Your task to perform on an android device: clear all cookies in the chrome app Image 0: 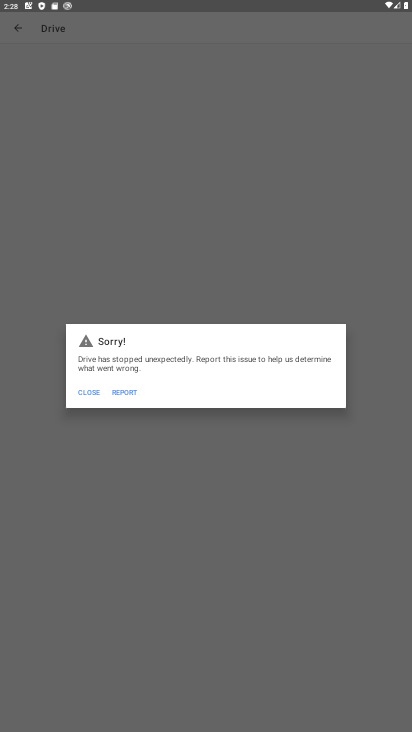
Step 0: press home button
Your task to perform on an android device: clear all cookies in the chrome app Image 1: 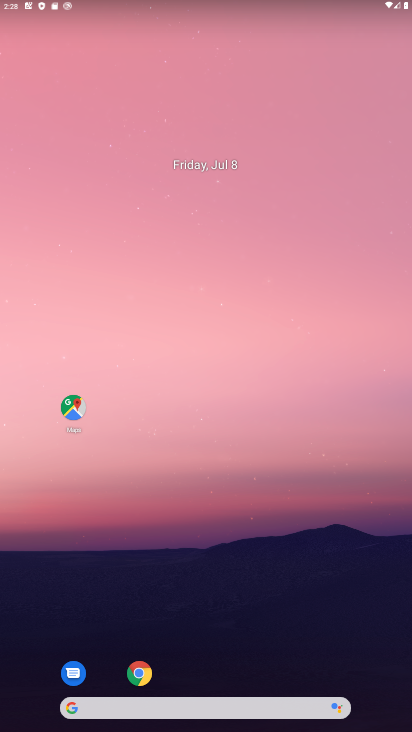
Step 1: click (140, 671)
Your task to perform on an android device: clear all cookies in the chrome app Image 2: 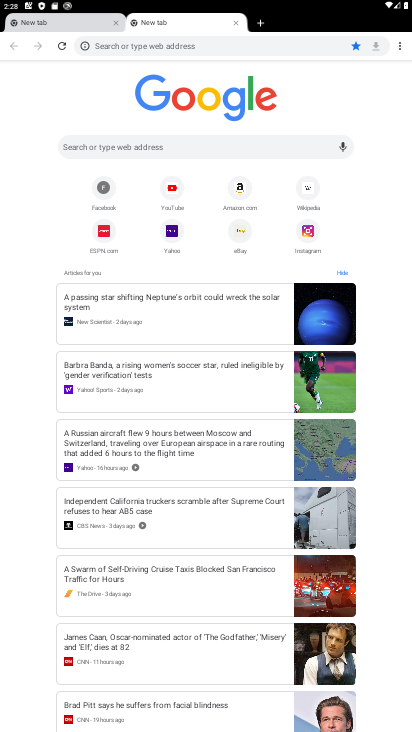
Step 2: click (396, 48)
Your task to perform on an android device: clear all cookies in the chrome app Image 3: 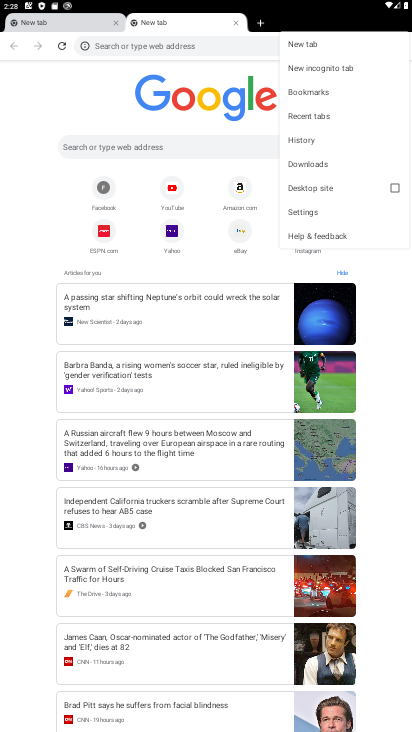
Step 3: click (312, 138)
Your task to perform on an android device: clear all cookies in the chrome app Image 4: 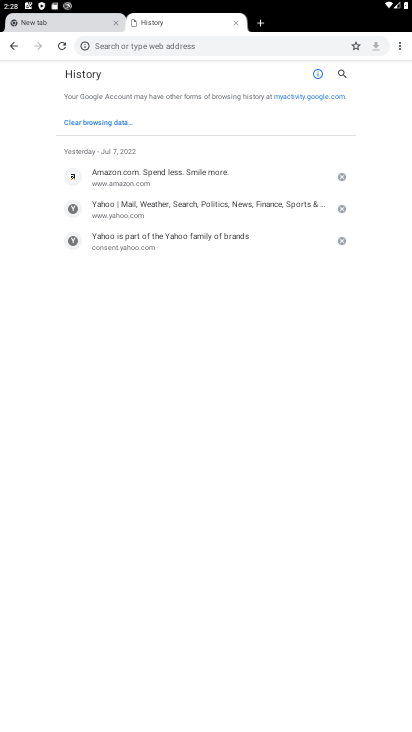
Step 4: click (106, 117)
Your task to perform on an android device: clear all cookies in the chrome app Image 5: 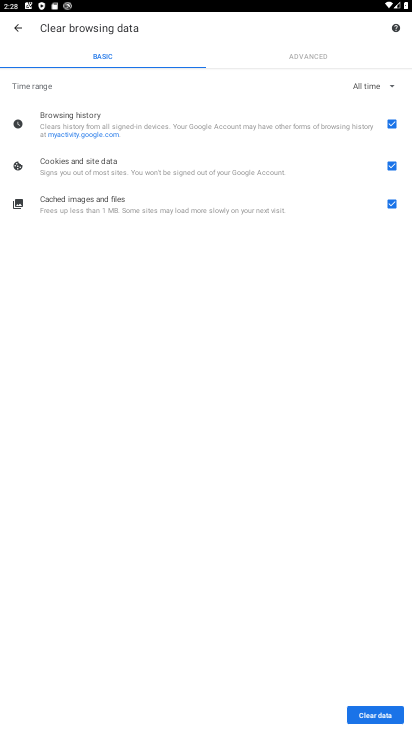
Step 5: click (391, 201)
Your task to perform on an android device: clear all cookies in the chrome app Image 6: 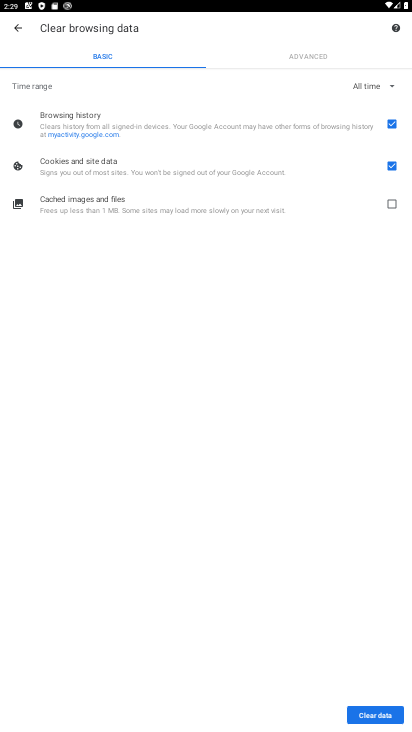
Step 6: click (396, 127)
Your task to perform on an android device: clear all cookies in the chrome app Image 7: 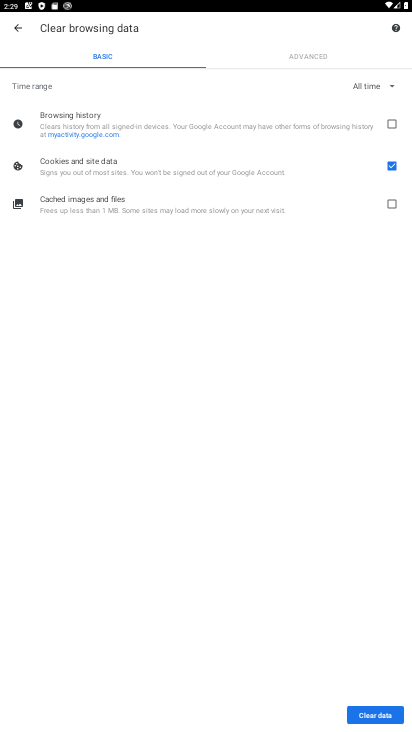
Step 7: click (381, 719)
Your task to perform on an android device: clear all cookies in the chrome app Image 8: 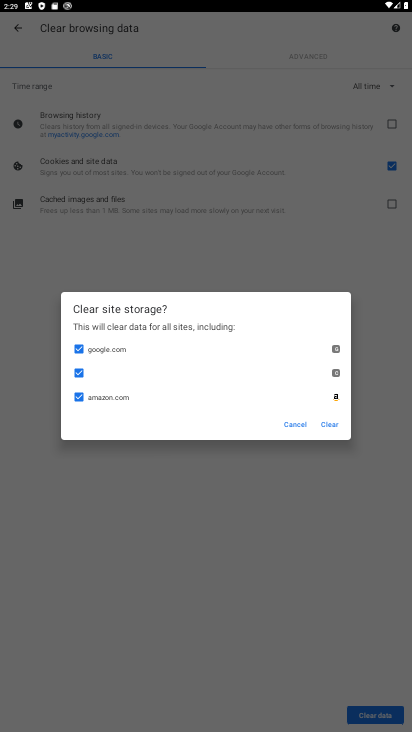
Step 8: click (338, 426)
Your task to perform on an android device: clear all cookies in the chrome app Image 9: 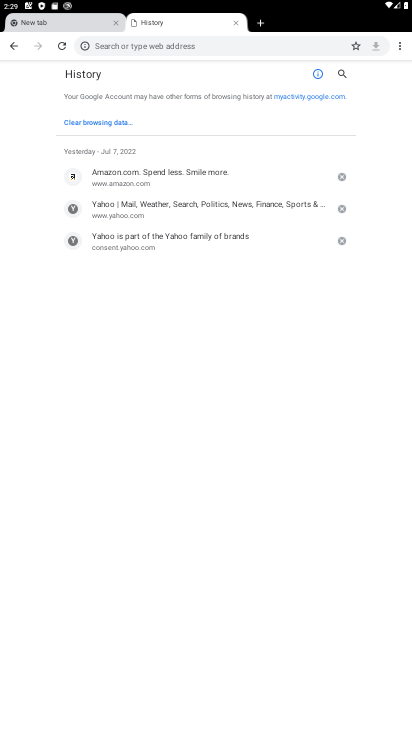
Step 9: task complete